Your task to perform on an android device: visit the assistant section in the google photos Image 0: 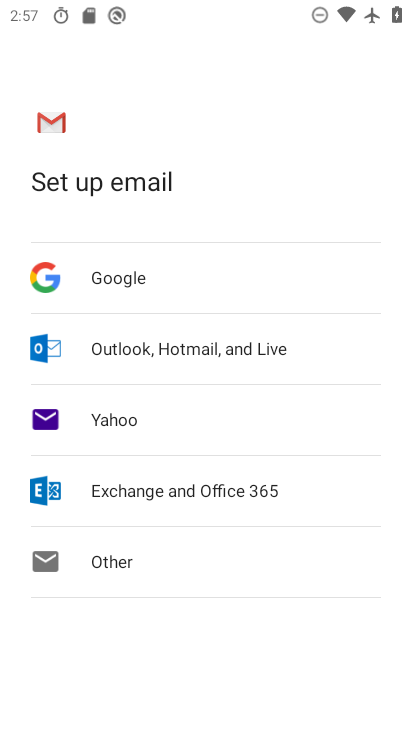
Step 0: press home button
Your task to perform on an android device: visit the assistant section in the google photos Image 1: 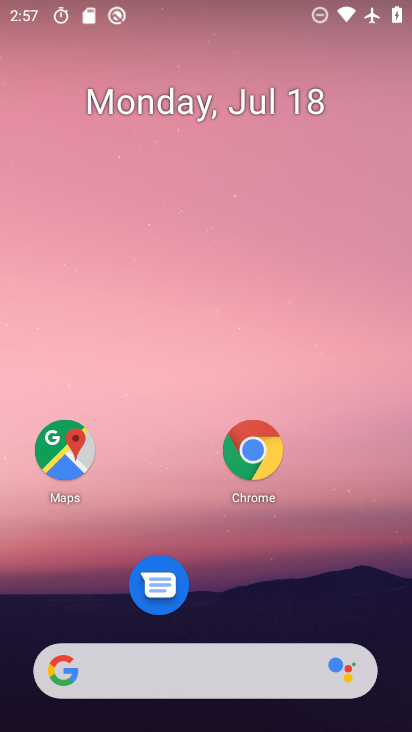
Step 1: drag from (121, 675) to (331, 132)
Your task to perform on an android device: visit the assistant section in the google photos Image 2: 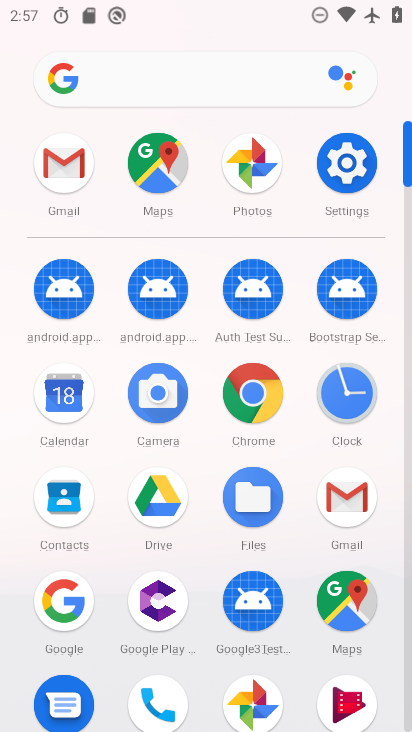
Step 2: click (253, 694)
Your task to perform on an android device: visit the assistant section in the google photos Image 3: 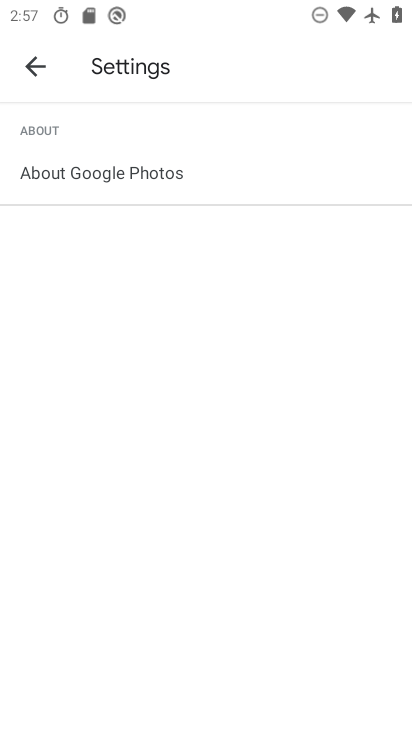
Step 3: click (35, 69)
Your task to perform on an android device: visit the assistant section in the google photos Image 4: 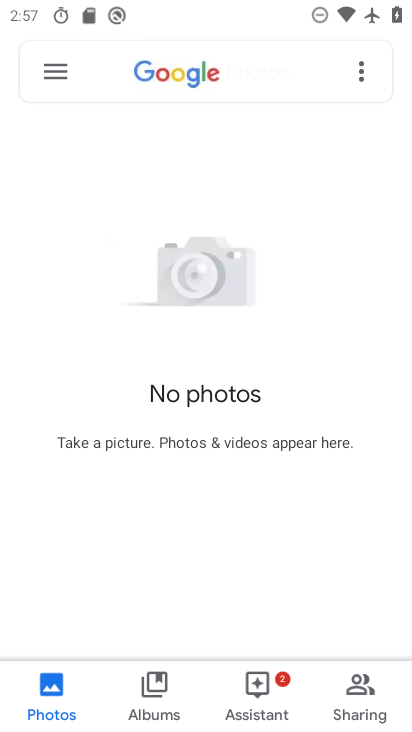
Step 4: click (253, 694)
Your task to perform on an android device: visit the assistant section in the google photos Image 5: 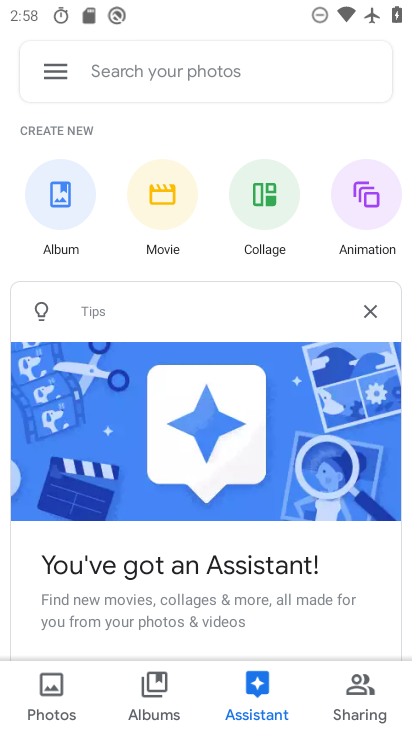
Step 5: task complete